Your task to perform on an android device: check out phone information Image 0: 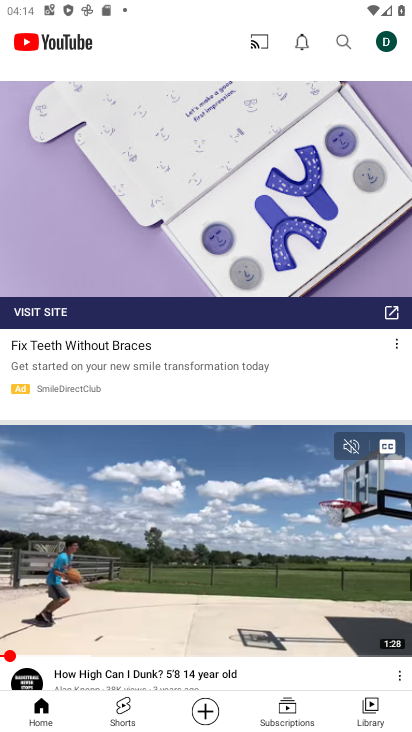
Step 0: press home button
Your task to perform on an android device: check out phone information Image 1: 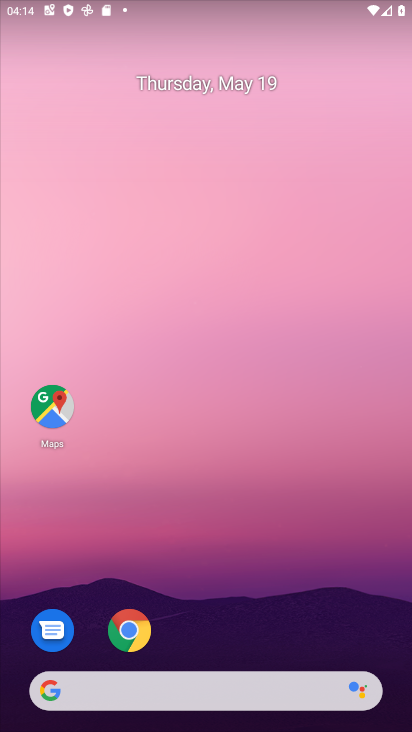
Step 1: drag from (368, 631) to (246, 186)
Your task to perform on an android device: check out phone information Image 2: 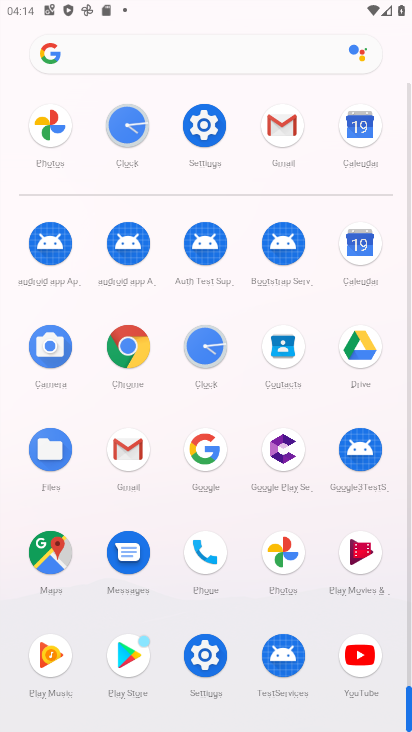
Step 2: click (206, 655)
Your task to perform on an android device: check out phone information Image 3: 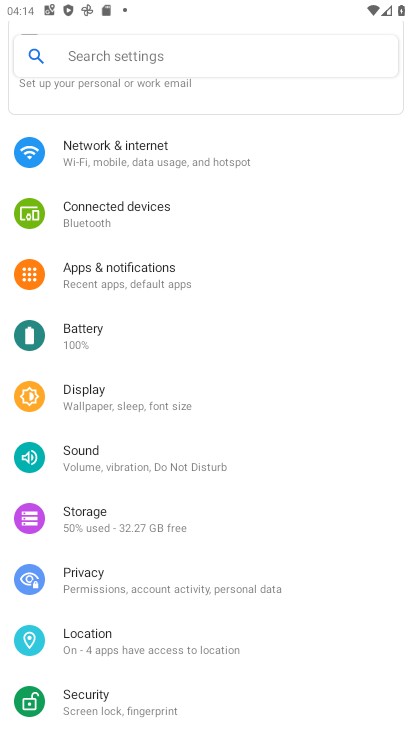
Step 3: drag from (306, 682) to (258, 237)
Your task to perform on an android device: check out phone information Image 4: 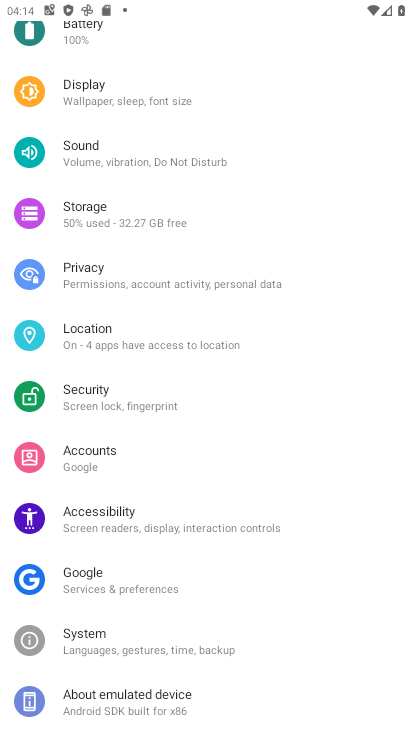
Step 4: click (141, 705)
Your task to perform on an android device: check out phone information Image 5: 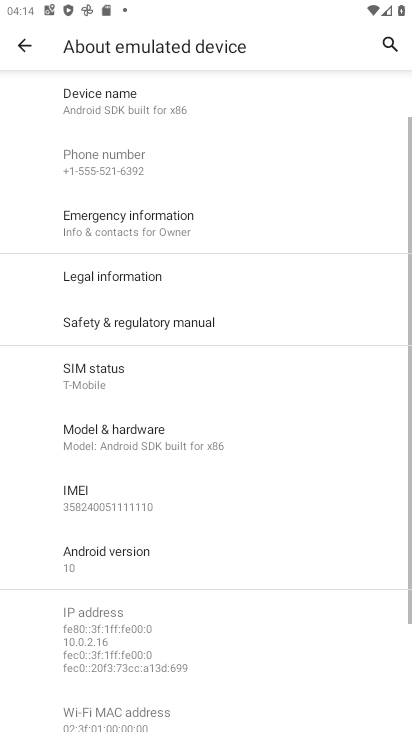
Step 5: task complete